Your task to perform on an android device: create a new album in the google photos Image 0: 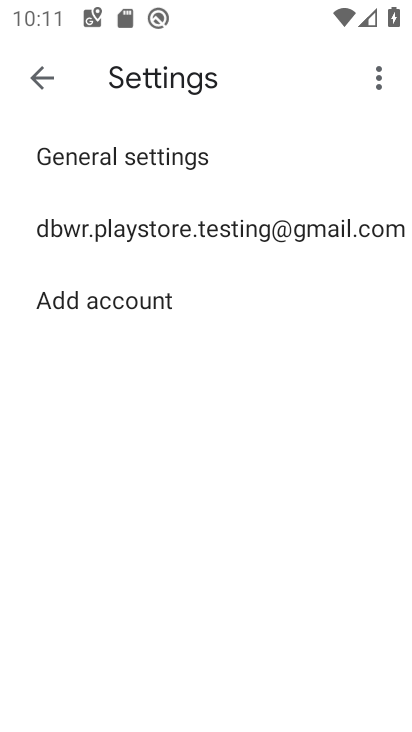
Step 0: press home button
Your task to perform on an android device: create a new album in the google photos Image 1: 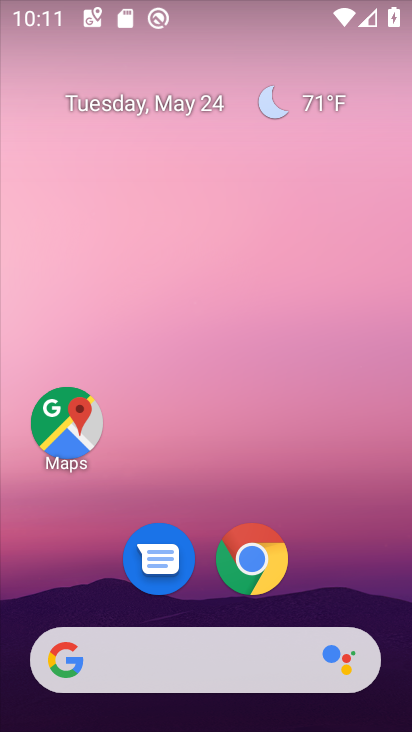
Step 1: drag from (401, 660) to (279, 34)
Your task to perform on an android device: create a new album in the google photos Image 2: 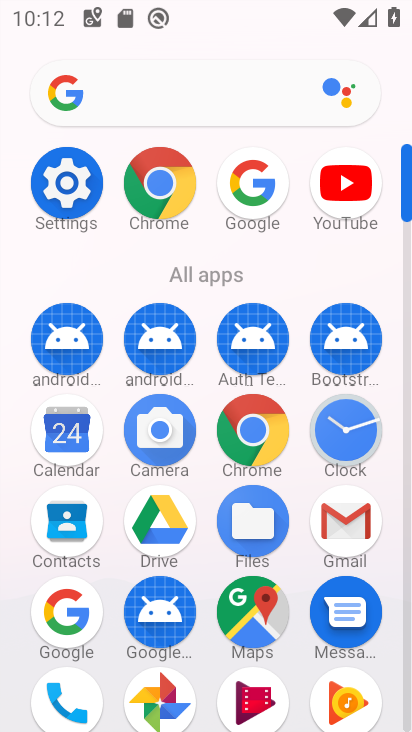
Step 2: click (161, 683)
Your task to perform on an android device: create a new album in the google photos Image 3: 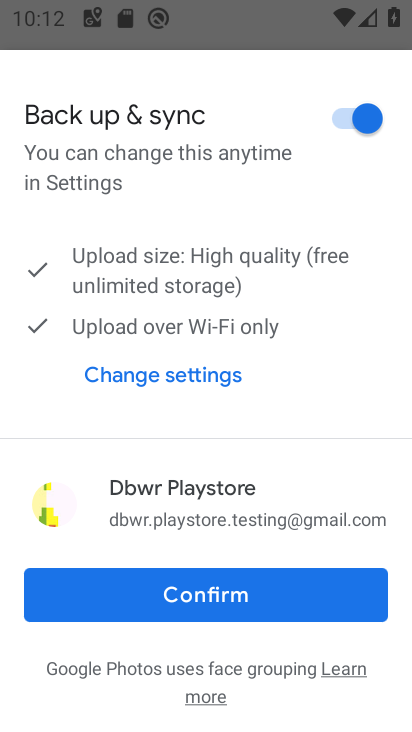
Step 3: click (220, 603)
Your task to perform on an android device: create a new album in the google photos Image 4: 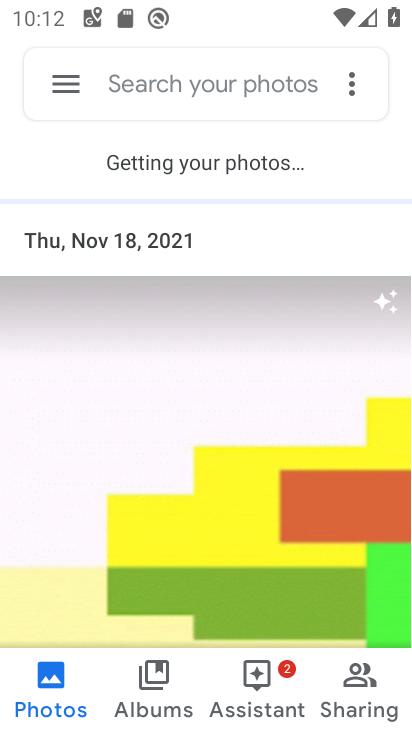
Step 4: press back button
Your task to perform on an android device: create a new album in the google photos Image 5: 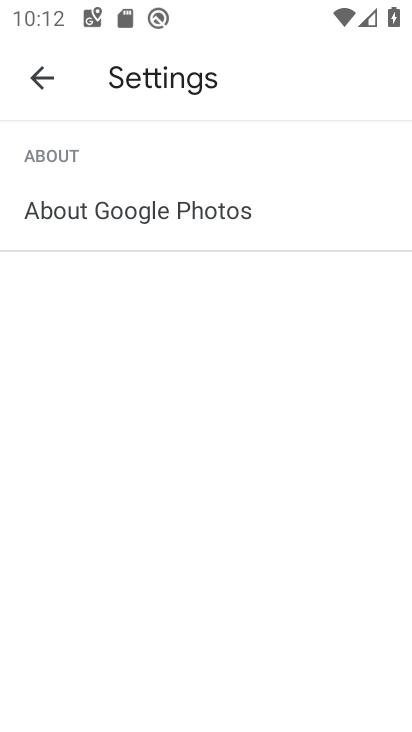
Step 5: press back button
Your task to perform on an android device: create a new album in the google photos Image 6: 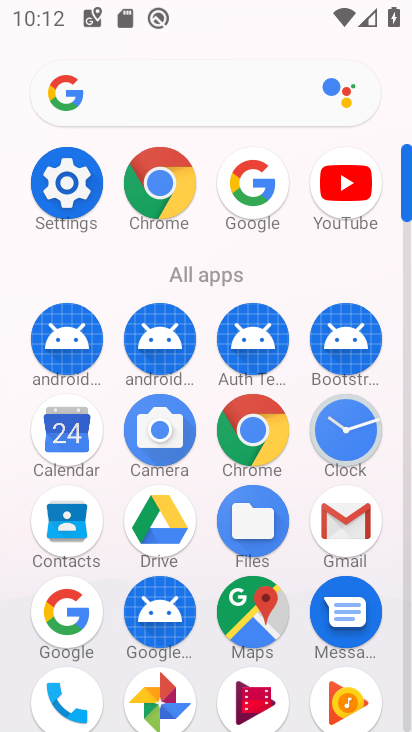
Step 6: click (164, 720)
Your task to perform on an android device: create a new album in the google photos Image 7: 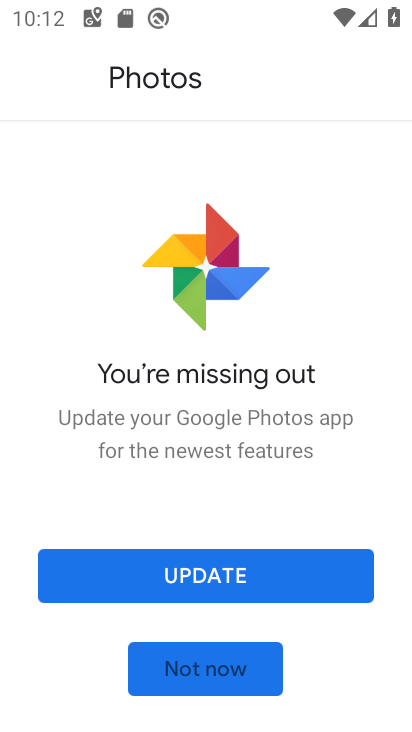
Step 7: click (203, 603)
Your task to perform on an android device: create a new album in the google photos Image 8: 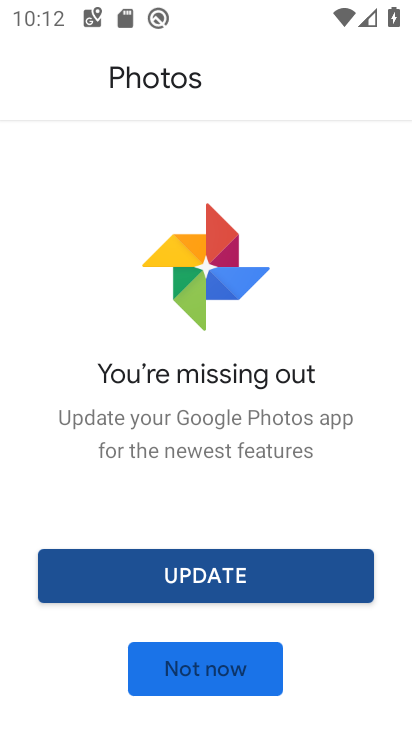
Step 8: click (199, 569)
Your task to perform on an android device: create a new album in the google photos Image 9: 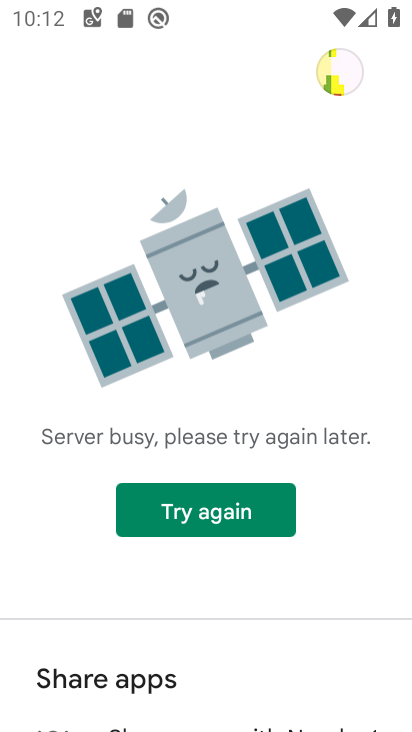
Step 9: click (230, 507)
Your task to perform on an android device: create a new album in the google photos Image 10: 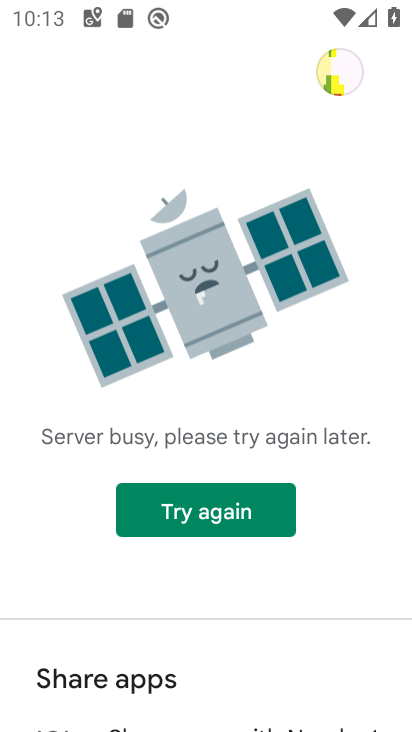
Step 10: task complete